Your task to perform on an android device: Is it going to rain tomorrow? Image 0: 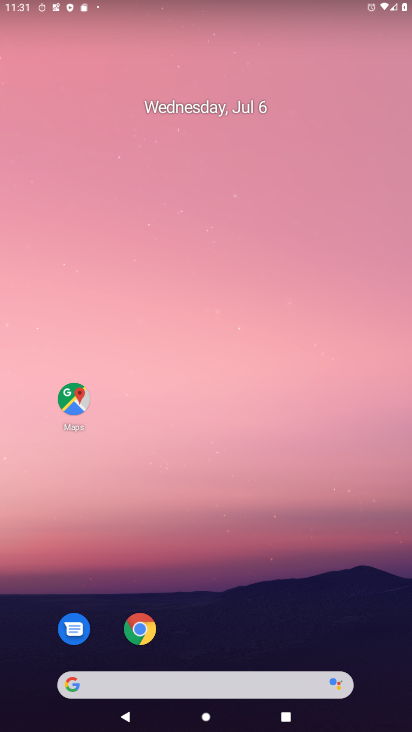
Step 0: drag from (205, 644) to (236, 118)
Your task to perform on an android device: Is it going to rain tomorrow? Image 1: 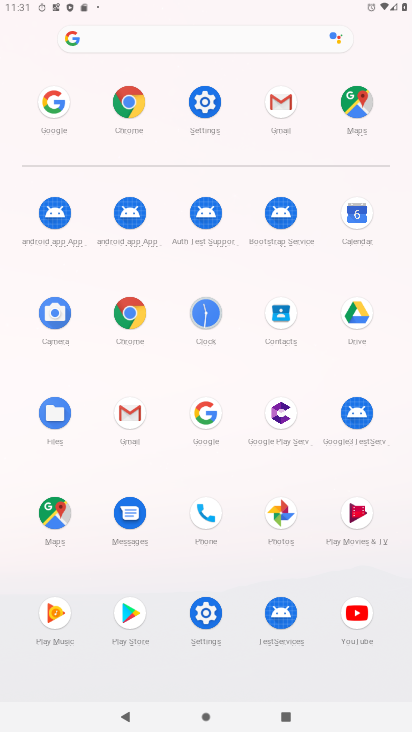
Step 1: click (205, 405)
Your task to perform on an android device: Is it going to rain tomorrow? Image 2: 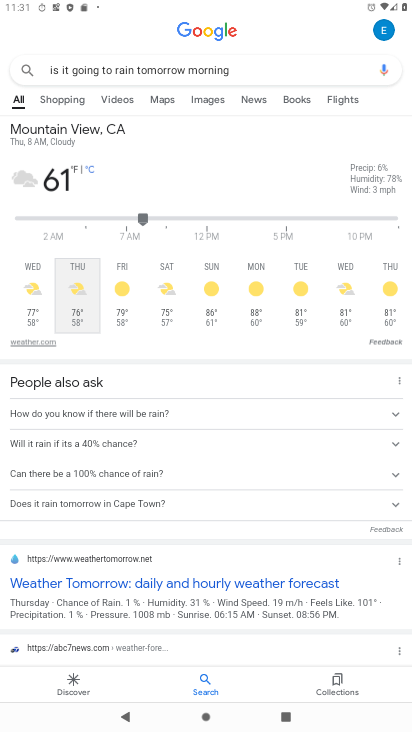
Step 2: click (270, 75)
Your task to perform on an android device: Is it going to rain tomorrow? Image 3: 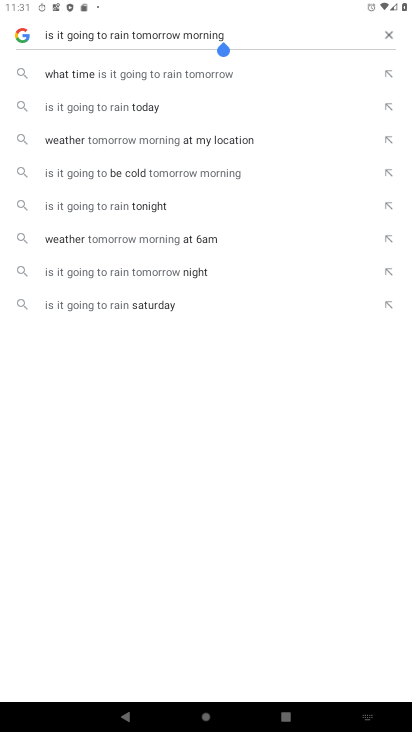
Step 3: click (384, 35)
Your task to perform on an android device: Is it going to rain tomorrow? Image 4: 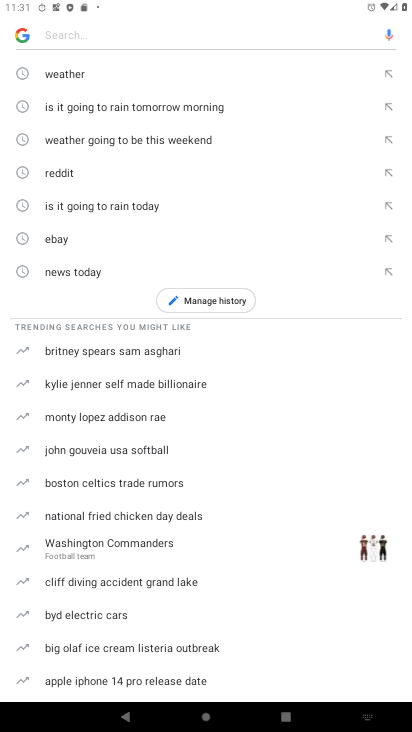
Step 4: click (177, 105)
Your task to perform on an android device: Is it going to rain tomorrow? Image 5: 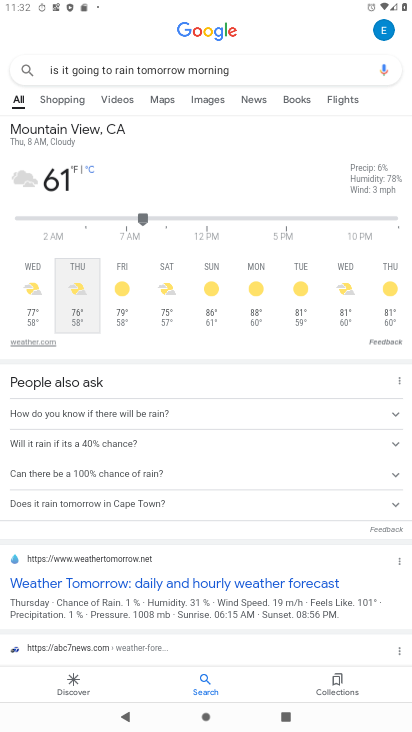
Step 5: task complete